Your task to perform on an android device: Clear the shopping cart on newegg.com. Add "lenovo thinkpad" to the cart on newegg.com Image 0: 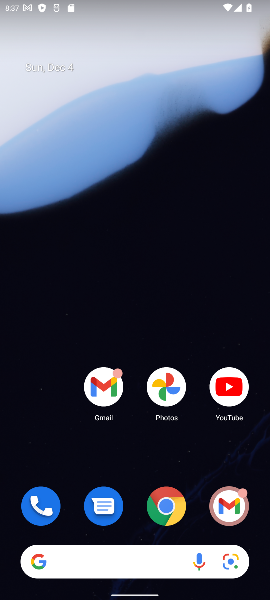
Step 0: click (160, 504)
Your task to perform on an android device: Clear the shopping cart on newegg.com. Add "lenovo thinkpad" to the cart on newegg.com Image 1: 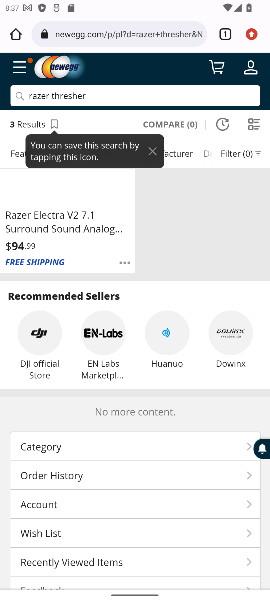
Step 1: click (214, 65)
Your task to perform on an android device: Clear the shopping cart on newegg.com. Add "lenovo thinkpad" to the cart on newegg.com Image 2: 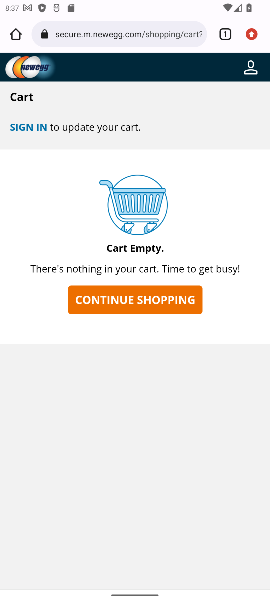
Step 2: click (168, 297)
Your task to perform on an android device: Clear the shopping cart on newegg.com. Add "lenovo thinkpad" to the cart on newegg.com Image 3: 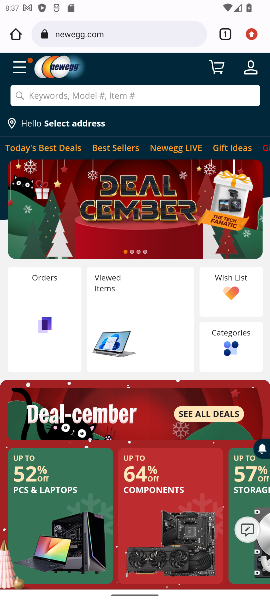
Step 3: click (111, 92)
Your task to perform on an android device: Clear the shopping cart on newegg.com. Add "lenovo thinkpad" to the cart on newegg.com Image 4: 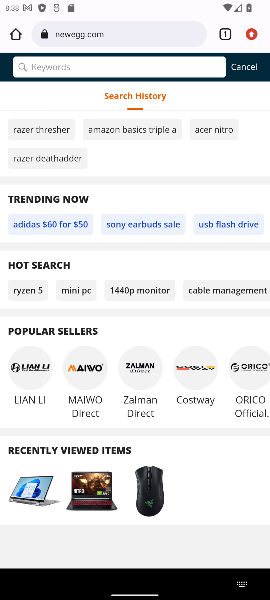
Step 4: type "lenovo thinkpad"
Your task to perform on an android device: Clear the shopping cart on newegg.com. Add "lenovo thinkpad" to the cart on newegg.com Image 5: 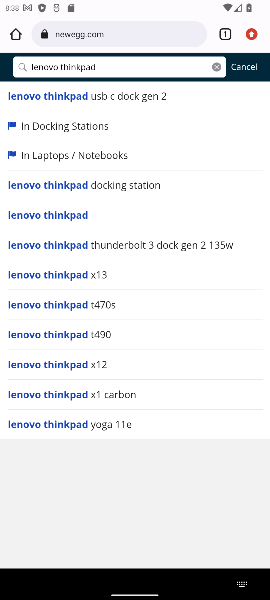
Step 5: click (84, 209)
Your task to perform on an android device: Clear the shopping cart on newegg.com. Add "lenovo thinkpad" to the cart on newegg.com Image 6: 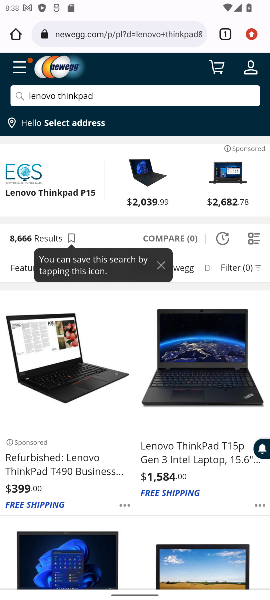
Step 6: click (178, 454)
Your task to perform on an android device: Clear the shopping cart on newegg.com. Add "lenovo thinkpad" to the cart on newegg.com Image 7: 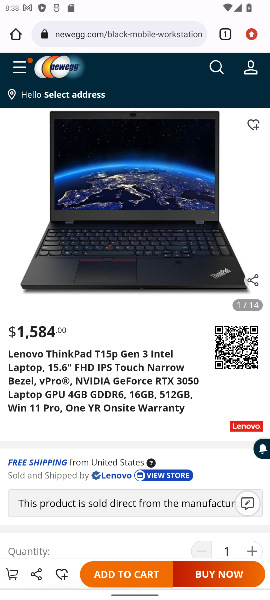
Step 7: click (121, 574)
Your task to perform on an android device: Clear the shopping cart on newegg.com. Add "lenovo thinkpad" to the cart on newegg.com Image 8: 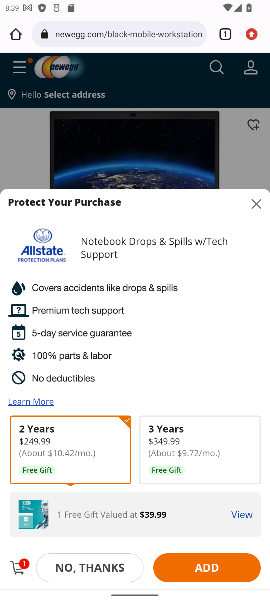
Step 8: task complete